Your task to perform on an android device: Search for the best 4k TVs Image 0: 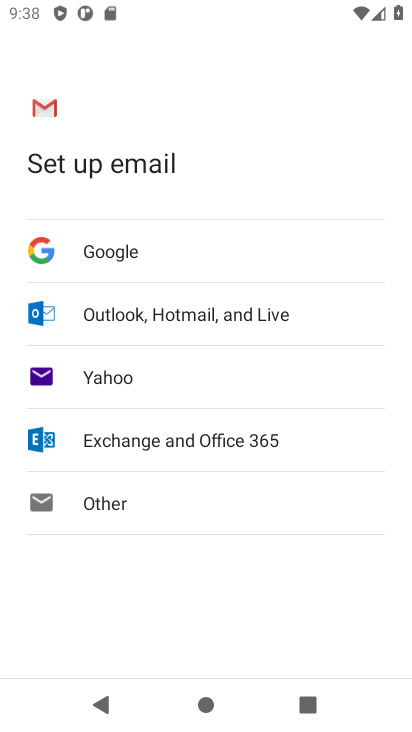
Step 0: press home button
Your task to perform on an android device: Search for the best 4k TVs Image 1: 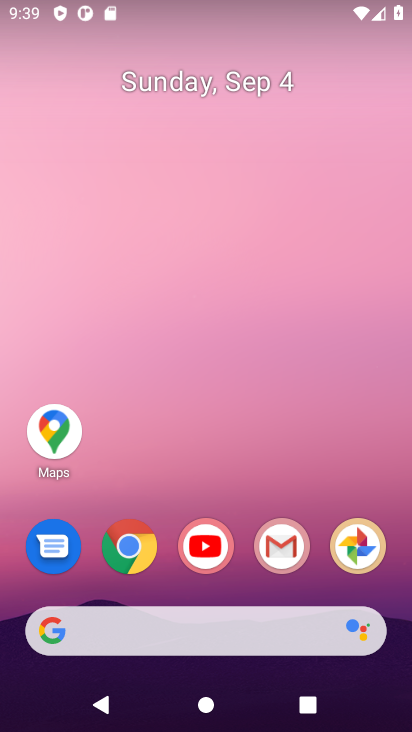
Step 1: click (132, 553)
Your task to perform on an android device: Search for the best 4k TVs Image 2: 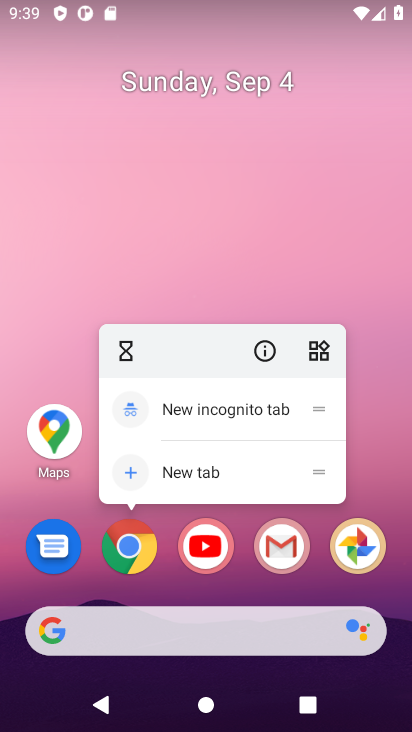
Step 2: click (132, 553)
Your task to perform on an android device: Search for the best 4k TVs Image 3: 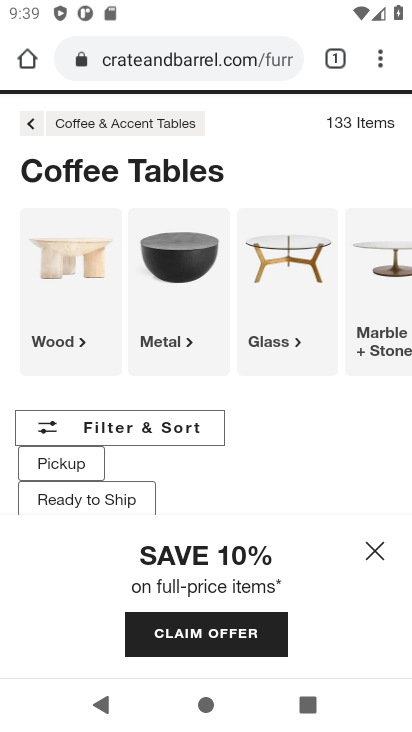
Step 3: click (231, 56)
Your task to perform on an android device: Search for the best 4k TVs Image 4: 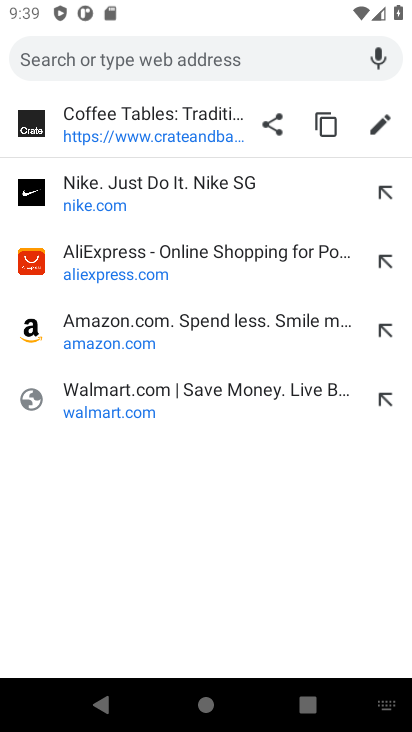
Step 4: type "best 4k TVs"
Your task to perform on an android device: Search for the best 4k TVs Image 5: 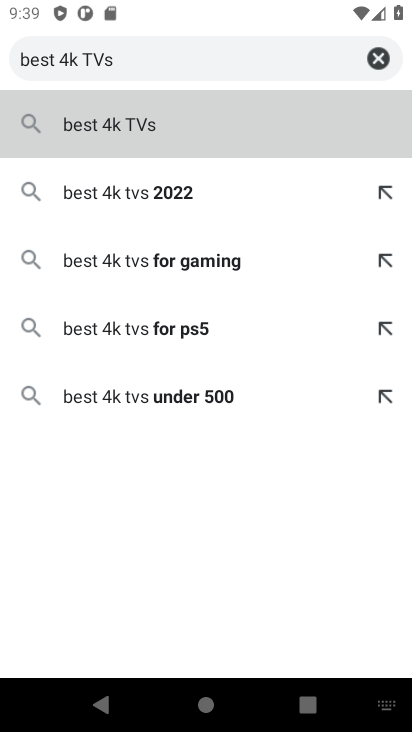
Step 5: click (101, 140)
Your task to perform on an android device: Search for the best 4k TVs Image 6: 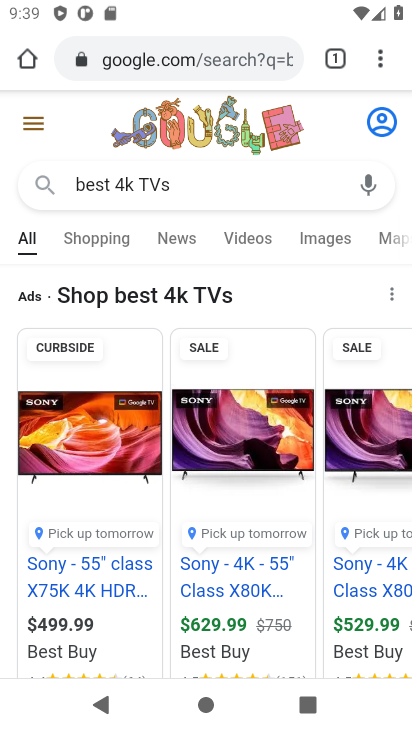
Step 6: click (80, 564)
Your task to perform on an android device: Search for the best 4k TVs Image 7: 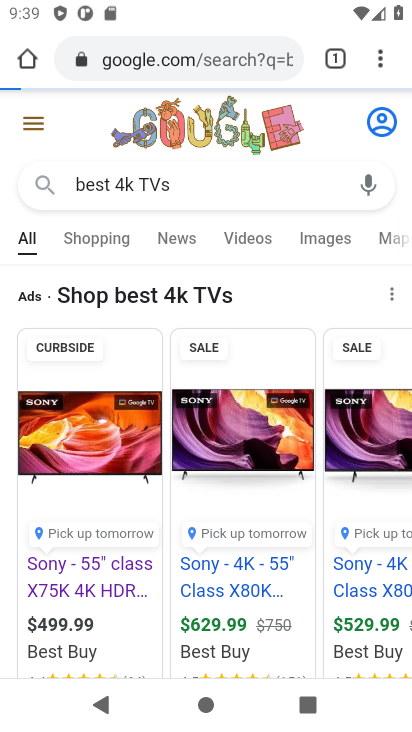
Step 7: click (83, 616)
Your task to perform on an android device: Search for the best 4k TVs Image 8: 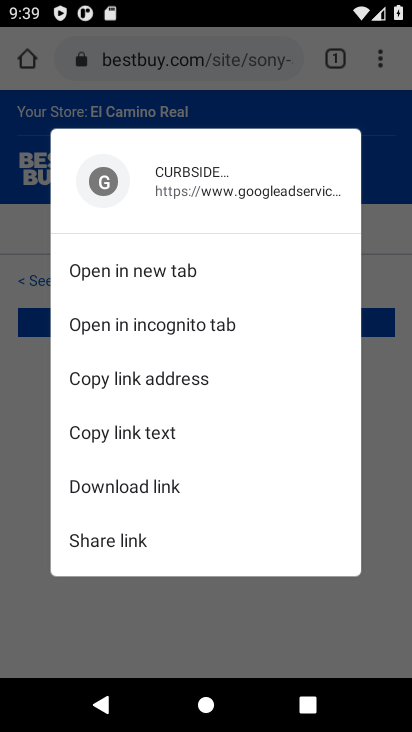
Step 8: click (100, 659)
Your task to perform on an android device: Search for the best 4k TVs Image 9: 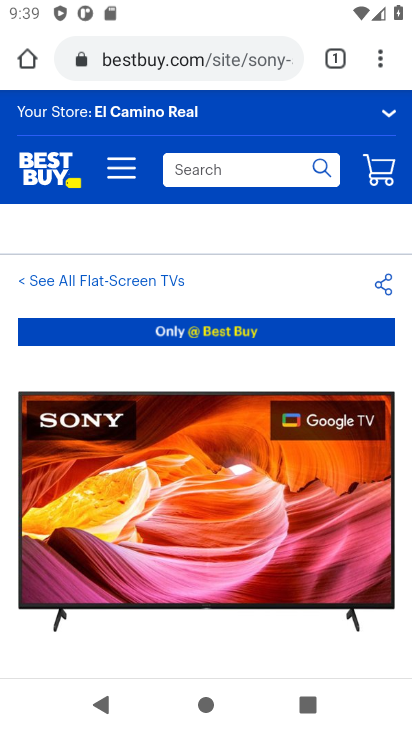
Step 9: task complete